Your task to perform on an android device: Open the calendar app, open the side menu, and click the "Day" option Image 0: 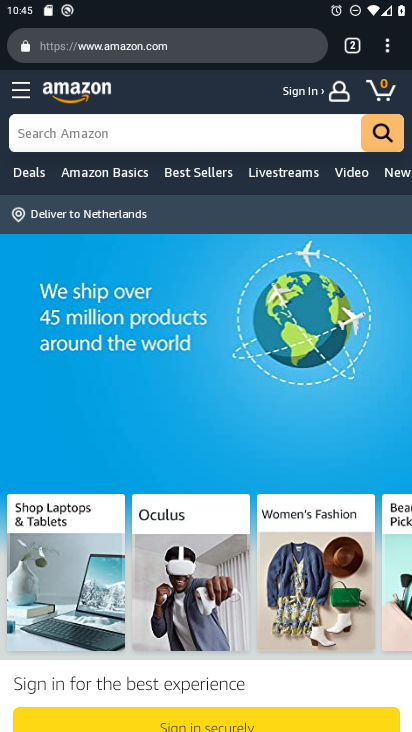
Step 0: press home button
Your task to perform on an android device: Open the calendar app, open the side menu, and click the "Day" option Image 1: 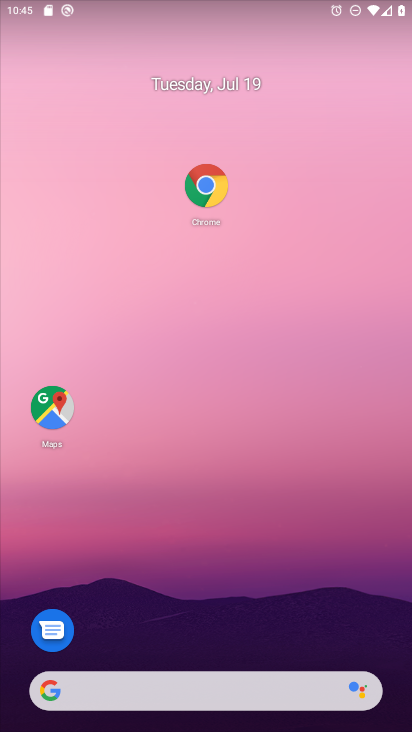
Step 1: drag from (259, 673) to (321, 150)
Your task to perform on an android device: Open the calendar app, open the side menu, and click the "Day" option Image 2: 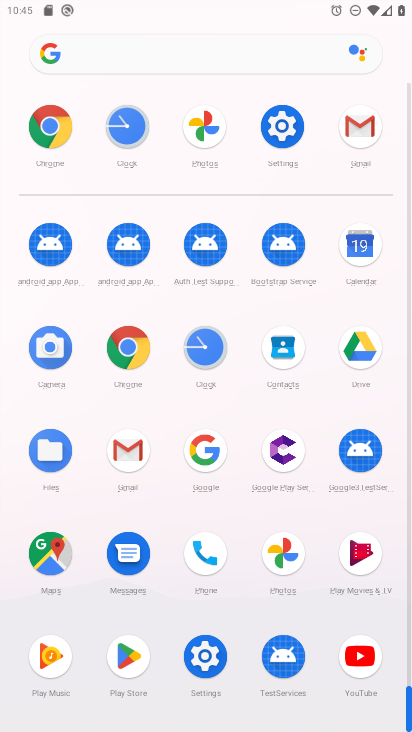
Step 2: drag from (217, 474) to (226, 293)
Your task to perform on an android device: Open the calendar app, open the side menu, and click the "Day" option Image 3: 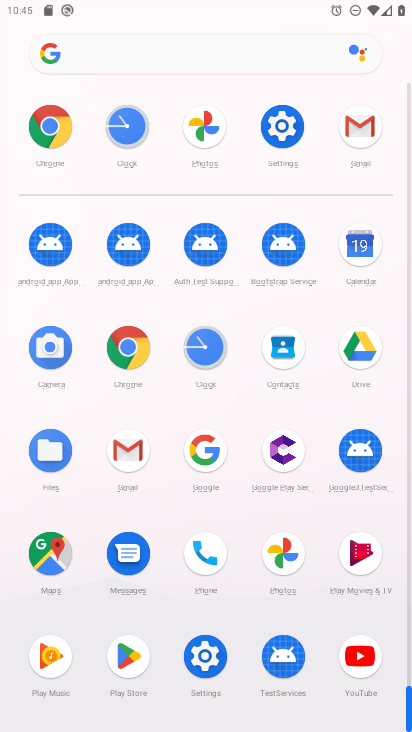
Step 3: click (372, 256)
Your task to perform on an android device: Open the calendar app, open the side menu, and click the "Day" option Image 4: 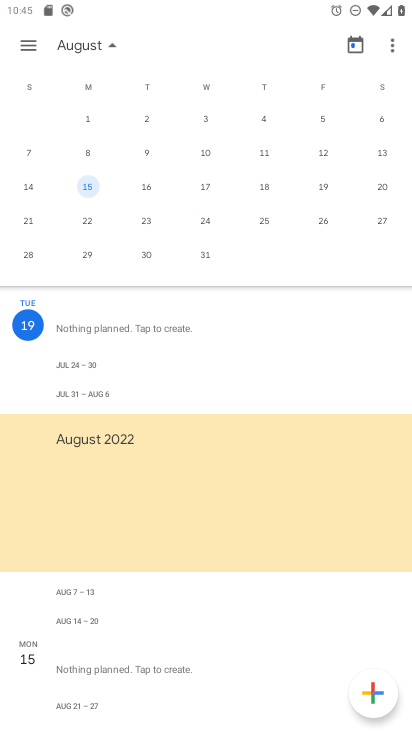
Step 4: click (36, 52)
Your task to perform on an android device: Open the calendar app, open the side menu, and click the "Day" option Image 5: 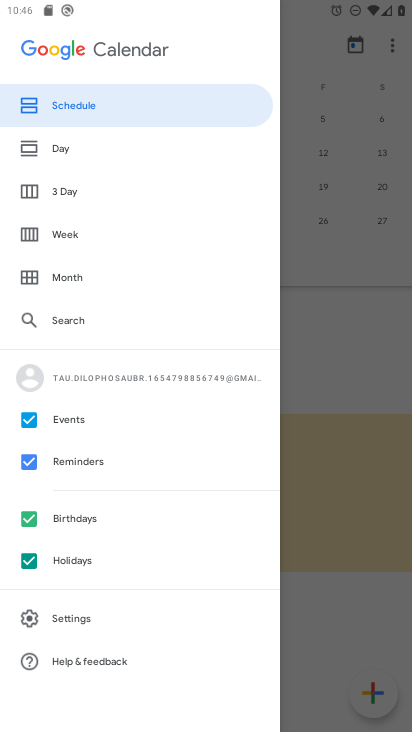
Step 5: click (59, 143)
Your task to perform on an android device: Open the calendar app, open the side menu, and click the "Day" option Image 6: 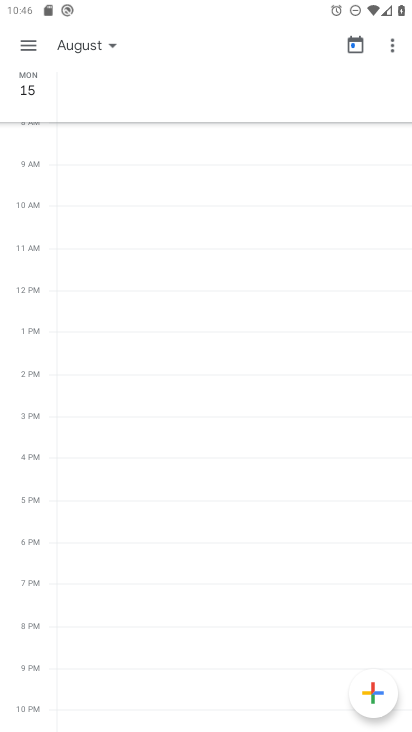
Step 6: task complete